Your task to perform on an android device: turn on notifications settings in the gmail app Image 0: 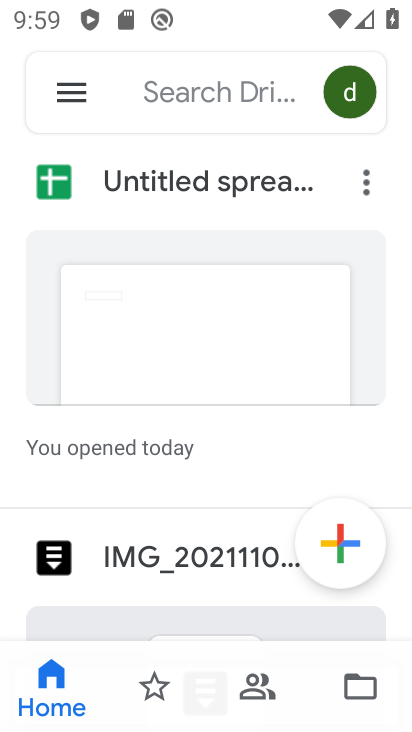
Step 0: press home button
Your task to perform on an android device: turn on notifications settings in the gmail app Image 1: 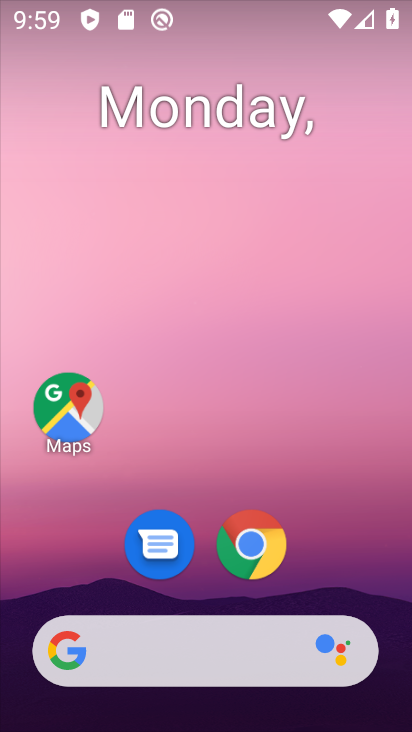
Step 1: drag from (352, 580) to (288, 13)
Your task to perform on an android device: turn on notifications settings in the gmail app Image 2: 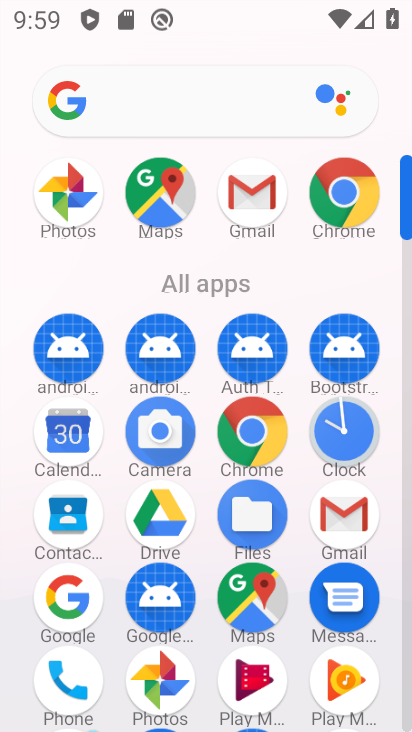
Step 2: click (247, 201)
Your task to perform on an android device: turn on notifications settings in the gmail app Image 3: 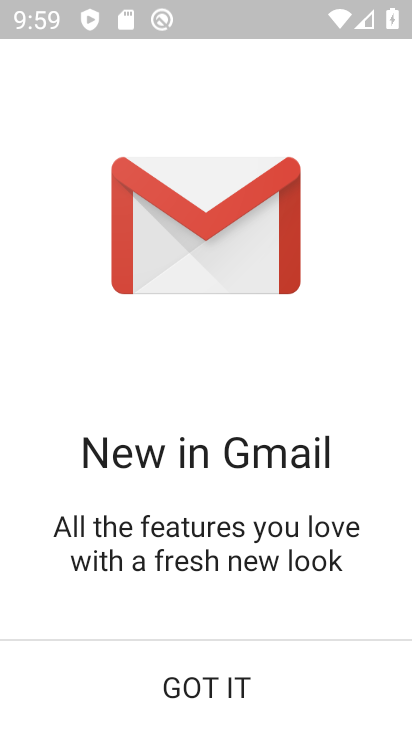
Step 3: click (212, 699)
Your task to perform on an android device: turn on notifications settings in the gmail app Image 4: 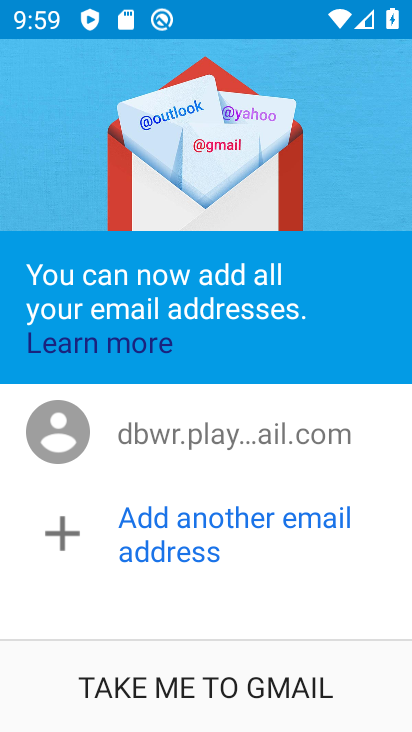
Step 4: click (240, 678)
Your task to perform on an android device: turn on notifications settings in the gmail app Image 5: 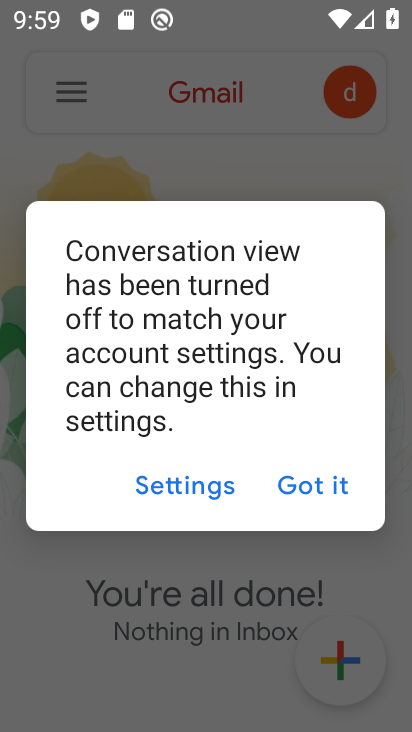
Step 5: click (317, 508)
Your task to perform on an android device: turn on notifications settings in the gmail app Image 6: 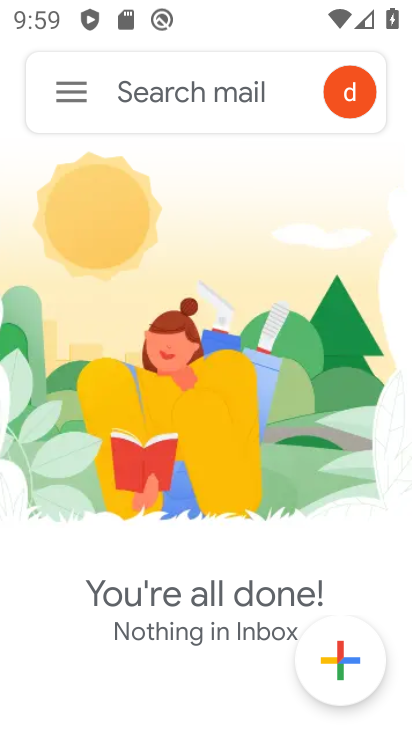
Step 6: task complete